Your task to perform on an android device: visit the assistant section in the google photos Image 0: 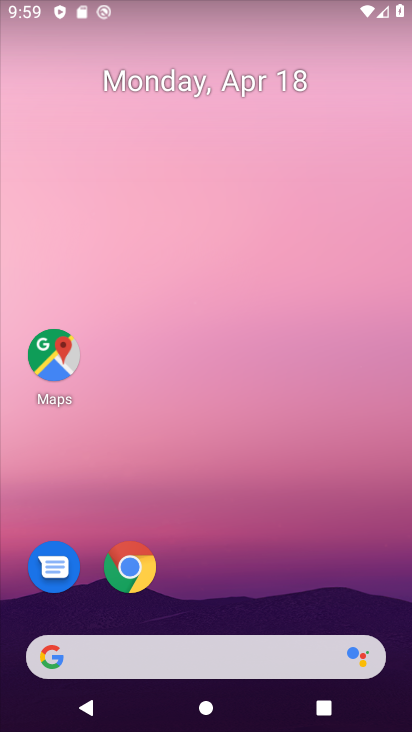
Step 0: drag from (257, 568) to (242, 127)
Your task to perform on an android device: visit the assistant section in the google photos Image 1: 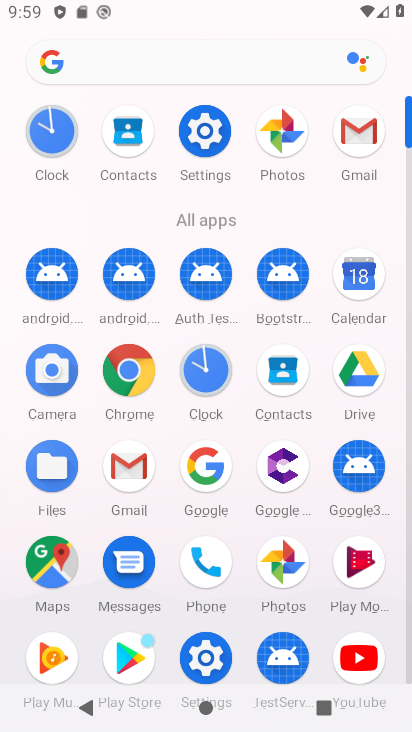
Step 1: click (295, 558)
Your task to perform on an android device: visit the assistant section in the google photos Image 2: 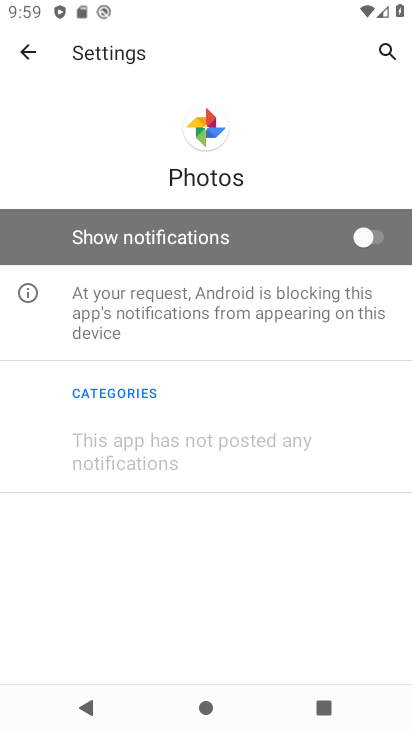
Step 2: click (24, 48)
Your task to perform on an android device: visit the assistant section in the google photos Image 3: 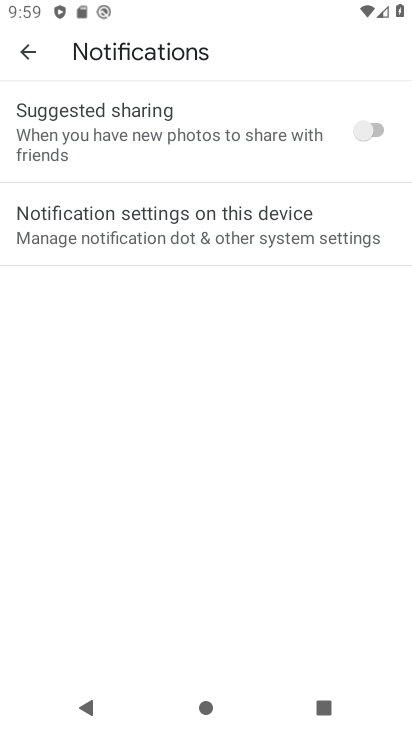
Step 3: press back button
Your task to perform on an android device: visit the assistant section in the google photos Image 4: 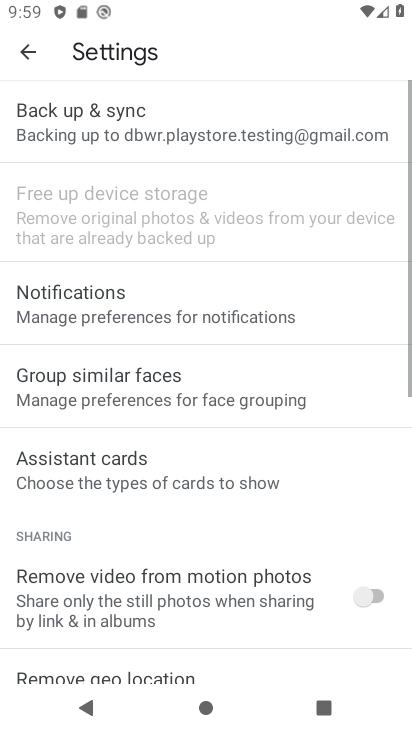
Step 4: press back button
Your task to perform on an android device: visit the assistant section in the google photos Image 5: 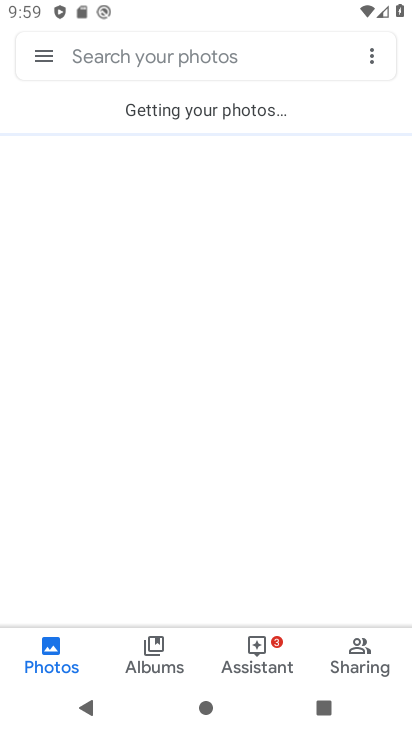
Step 5: click (254, 652)
Your task to perform on an android device: visit the assistant section in the google photos Image 6: 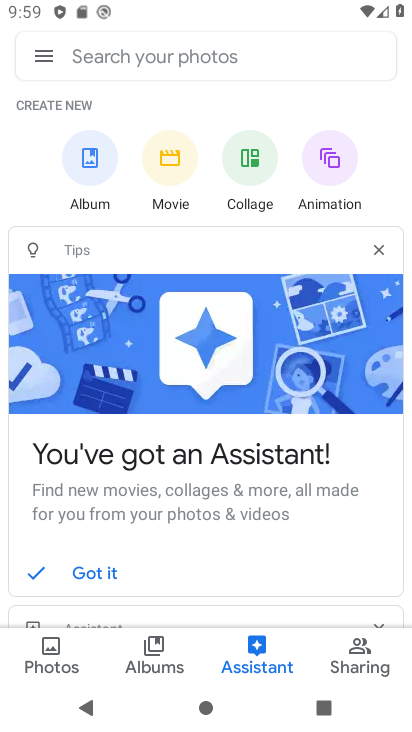
Step 6: task complete